Your task to perform on an android device: add a label to a message in the gmail app Image 0: 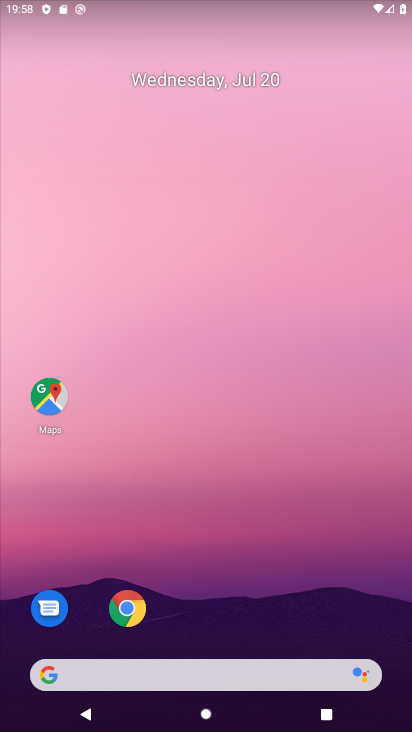
Step 0: drag from (286, 536) to (165, 1)
Your task to perform on an android device: add a label to a message in the gmail app Image 1: 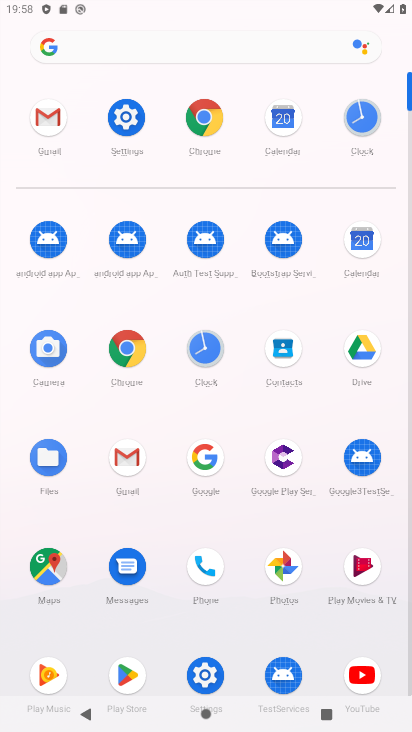
Step 1: click (46, 114)
Your task to perform on an android device: add a label to a message in the gmail app Image 2: 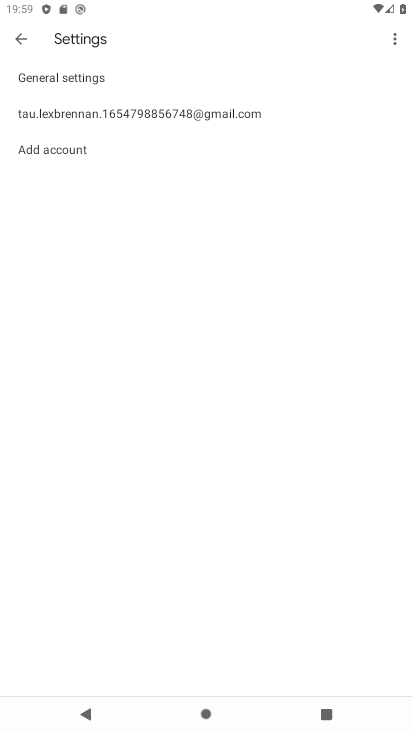
Step 2: click (28, 39)
Your task to perform on an android device: add a label to a message in the gmail app Image 3: 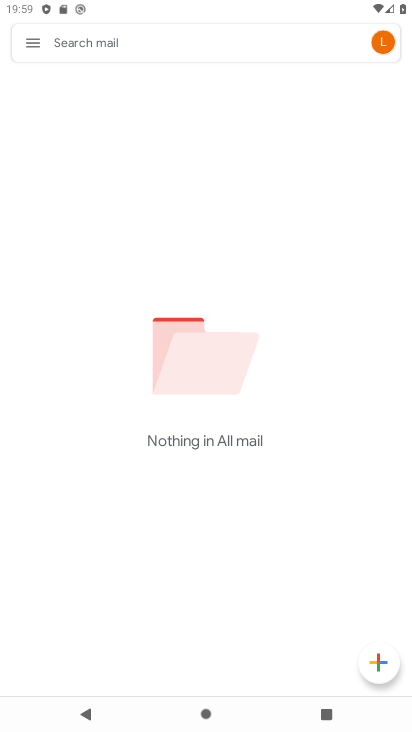
Step 3: click (28, 39)
Your task to perform on an android device: add a label to a message in the gmail app Image 4: 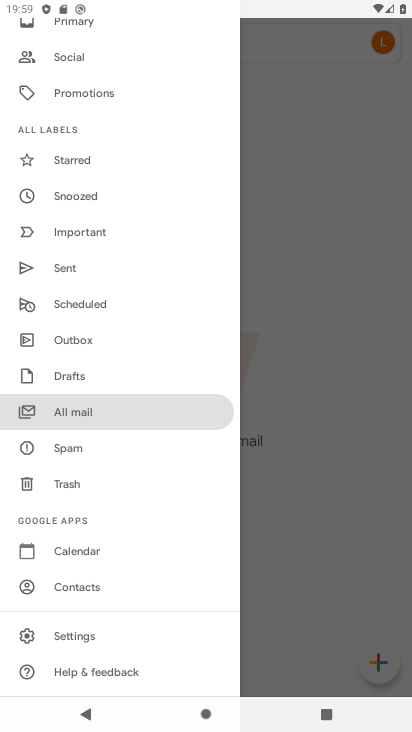
Step 4: click (398, 466)
Your task to perform on an android device: add a label to a message in the gmail app Image 5: 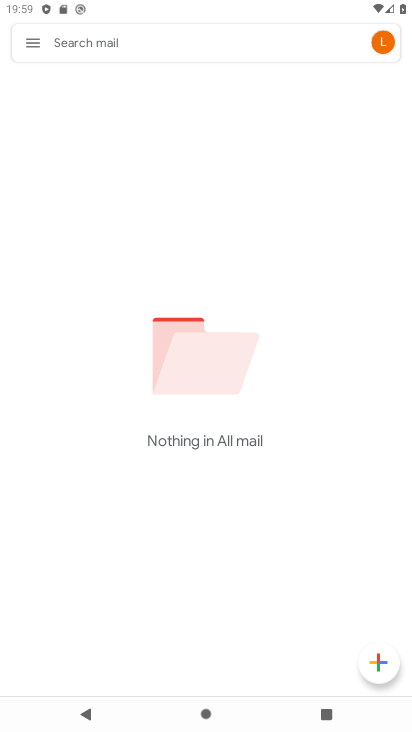
Step 5: task complete